Your task to perform on an android device: Do I have any events tomorrow? Image 0: 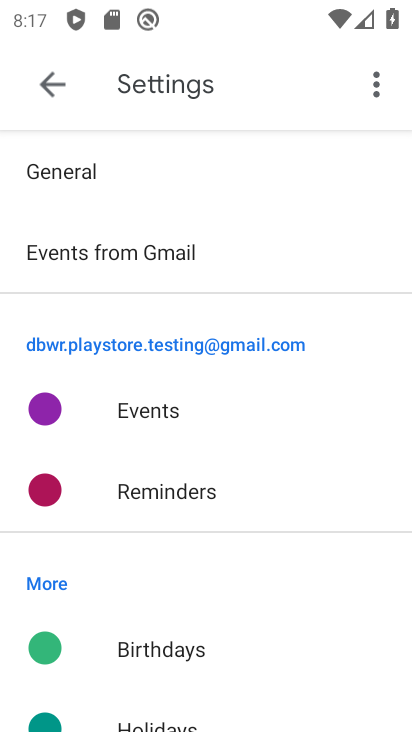
Step 0: click (5, 372)
Your task to perform on an android device: Do I have any events tomorrow? Image 1: 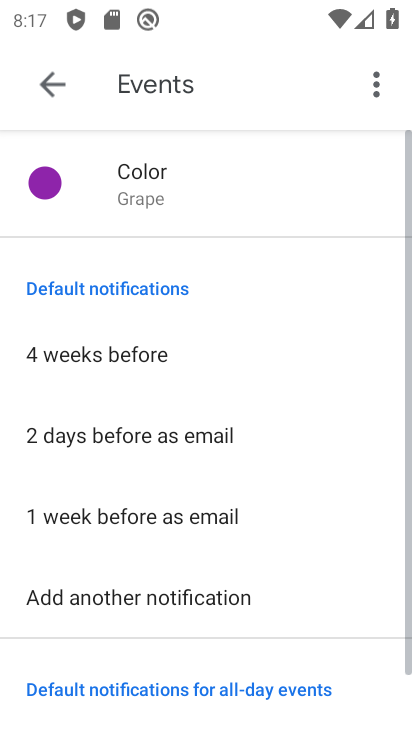
Step 1: press home button
Your task to perform on an android device: Do I have any events tomorrow? Image 2: 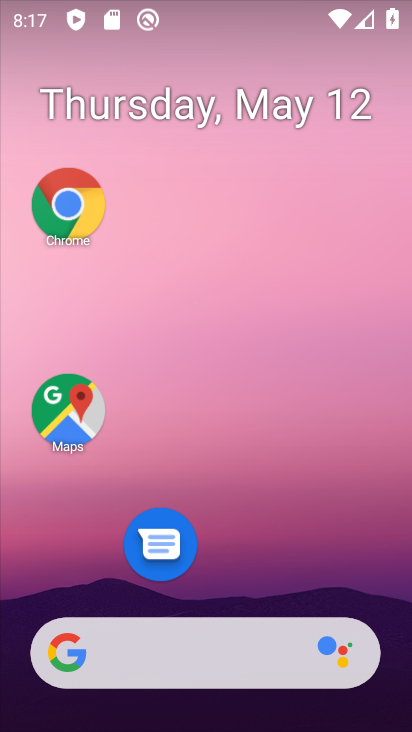
Step 2: drag from (236, 586) to (404, 558)
Your task to perform on an android device: Do I have any events tomorrow? Image 3: 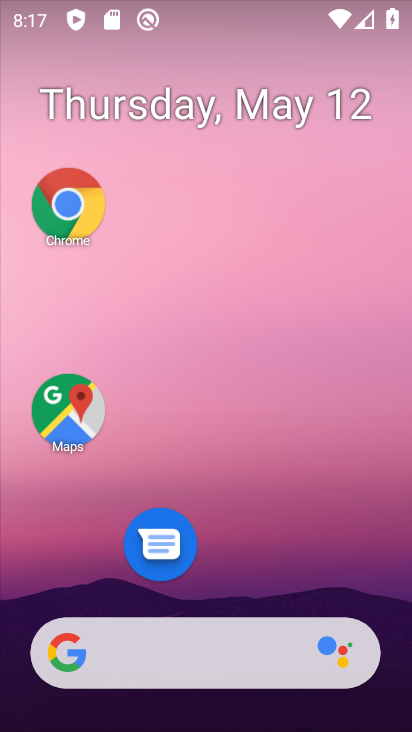
Step 3: drag from (222, 609) to (162, 65)
Your task to perform on an android device: Do I have any events tomorrow? Image 4: 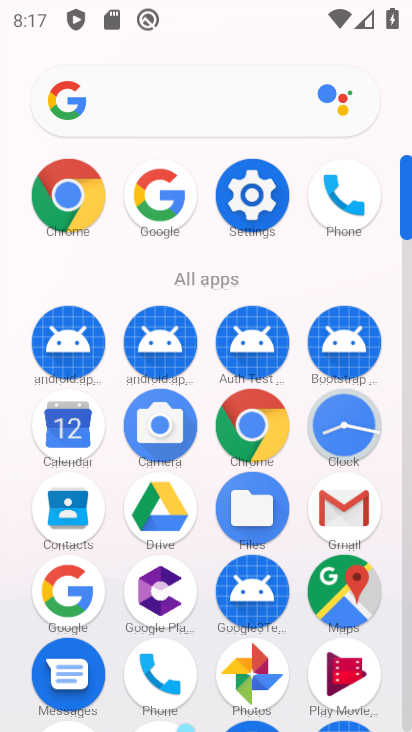
Step 4: click (61, 442)
Your task to perform on an android device: Do I have any events tomorrow? Image 5: 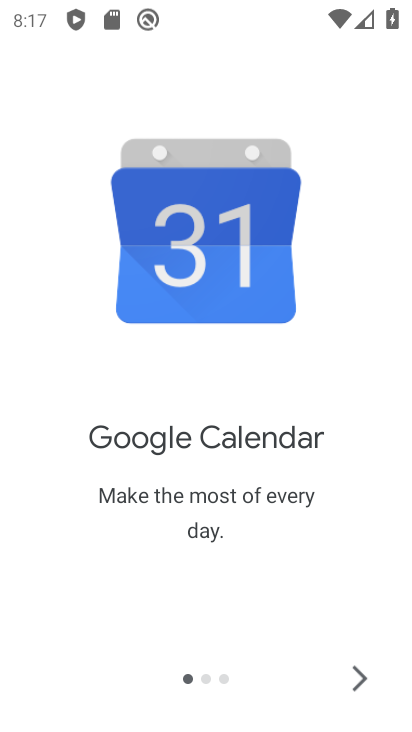
Step 5: click (355, 665)
Your task to perform on an android device: Do I have any events tomorrow? Image 6: 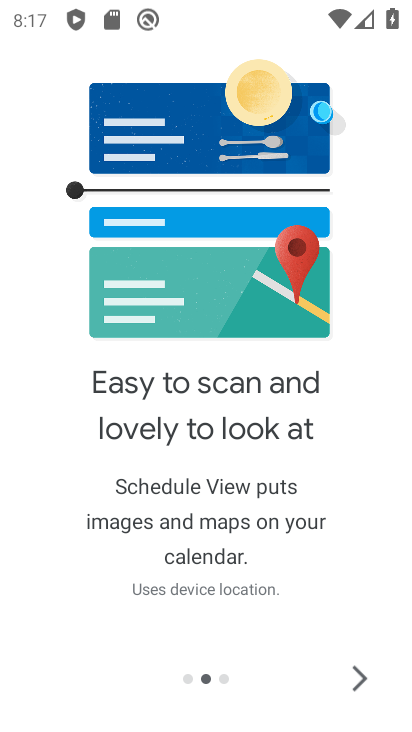
Step 6: click (360, 673)
Your task to perform on an android device: Do I have any events tomorrow? Image 7: 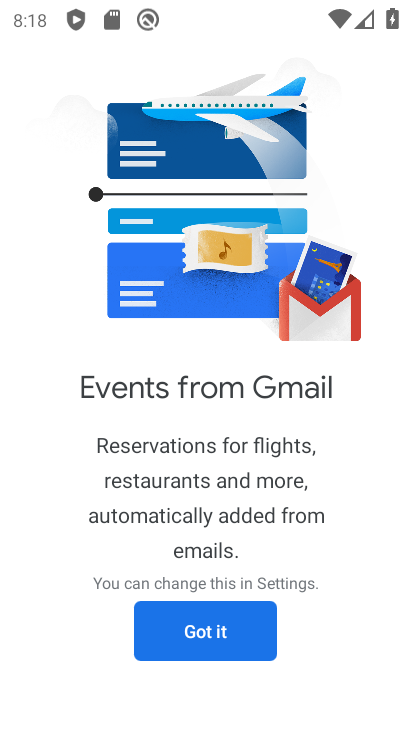
Step 7: click (219, 643)
Your task to perform on an android device: Do I have any events tomorrow? Image 8: 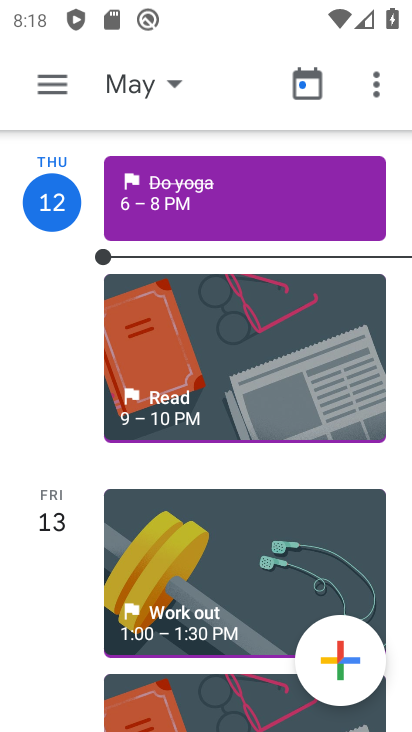
Step 8: click (58, 527)
Your task to perform on an android device: Do I have any events tomorrow? Image 9: 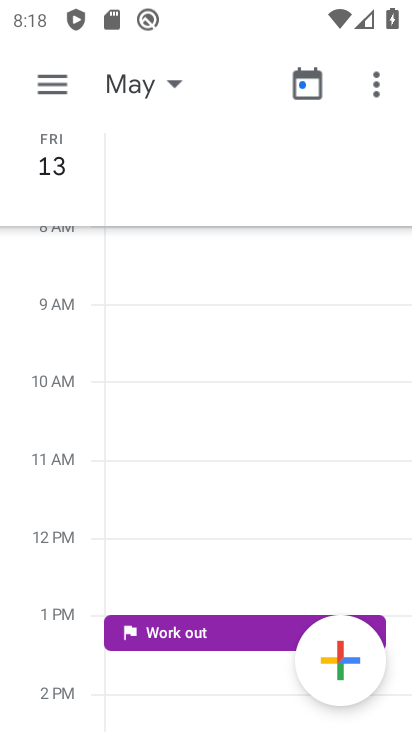
Step 9: task complete